Your task to perform on an android device: Show me the alarms in the clock app Image 0: 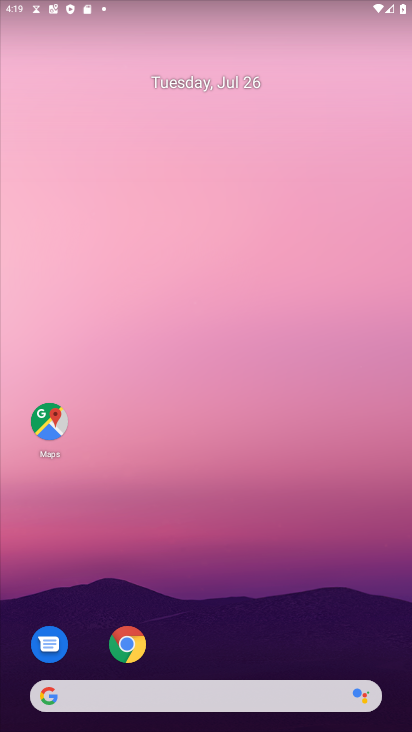
Step 0: drag from (258, 629) to (186, 227)
Your task to perform on an android device: Show me the alarms in the clock app Image 1: 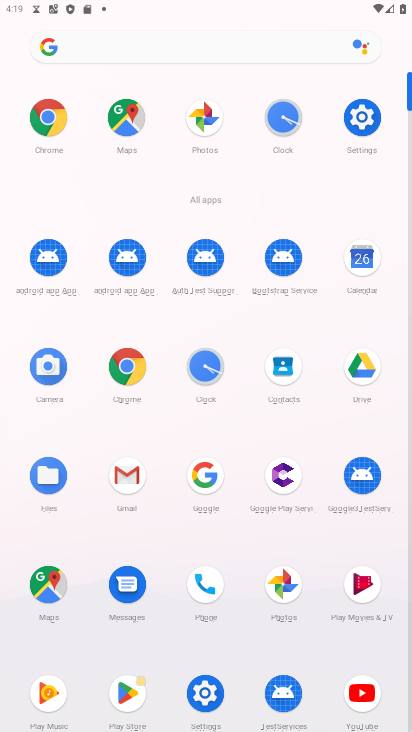
Step 1: click (285, 121)
Your task to perform on an android device: Show me the alarms in the clock app Image 2: 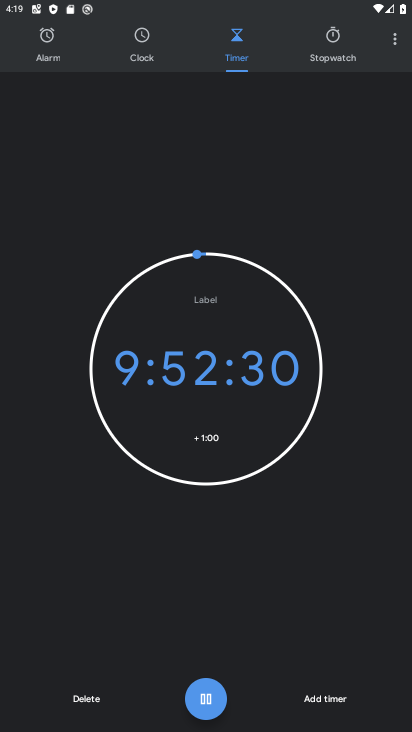
Step 2: click (54, 43)
Your task to perform on an android device: Show me the alarms in the clock app Image 3: 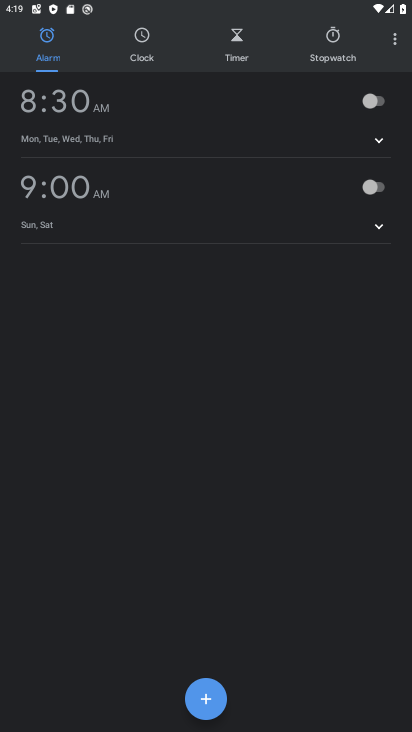
Step 3: task complete